Your task to perform on an android device: open the mobile data screen to see how much data has been used Image 0: 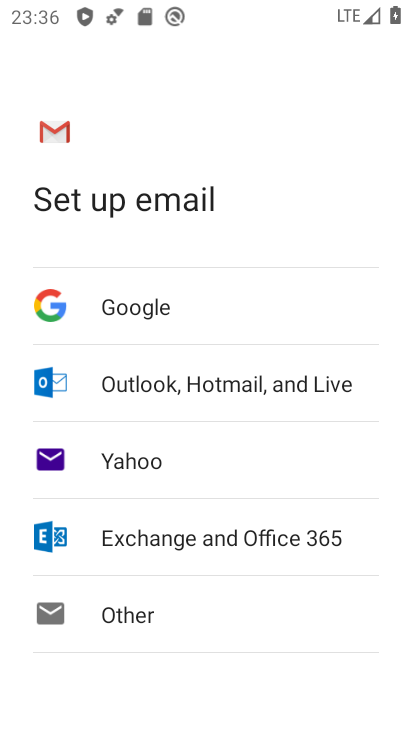
Step 0: press home button
Your task to perform on an android device: open the mobile data screen to see how much data has been used Image 1: 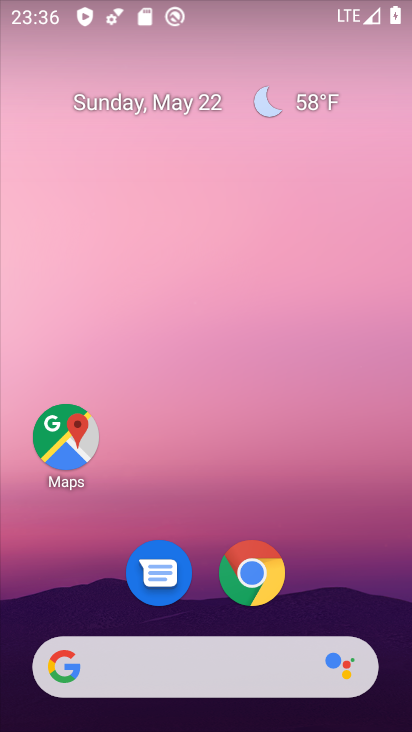
Step 1: drag from (208, 591) to (267, 0)
Your task to perform on an android device: open the mobile data screen to see how much data has been used Image 2: 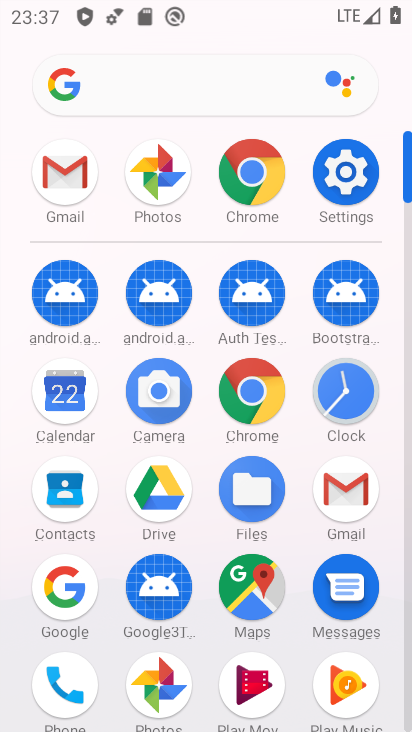
Step 2: click (363, 172)
Your task to perform on an android device: open the mobile data screen to see how much data has been used Image 3: 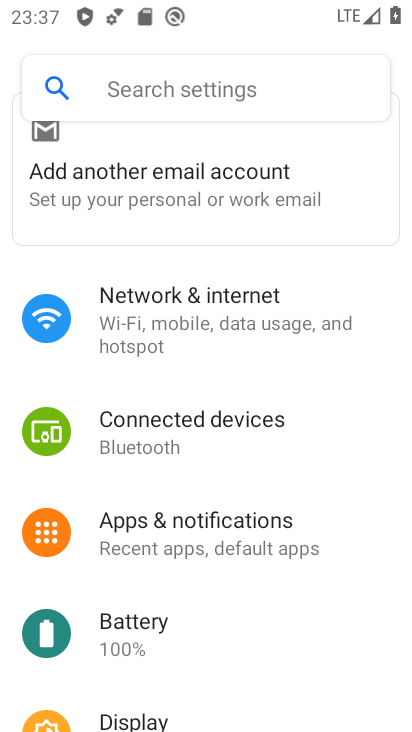
Step 3: click (242, 329)
Your task to perform on an android device: open the mobile data screen to see how much data has been used Image 4: 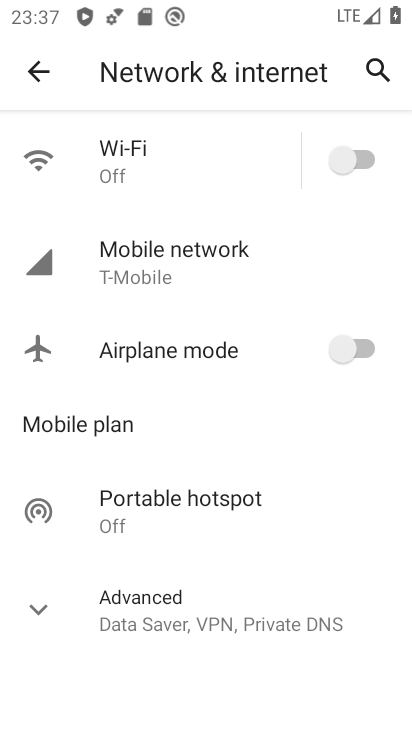
Step 4: click (156, 277)
Your task to perform on an android device: open the mobile data screen to see how much data has been used Image 5: 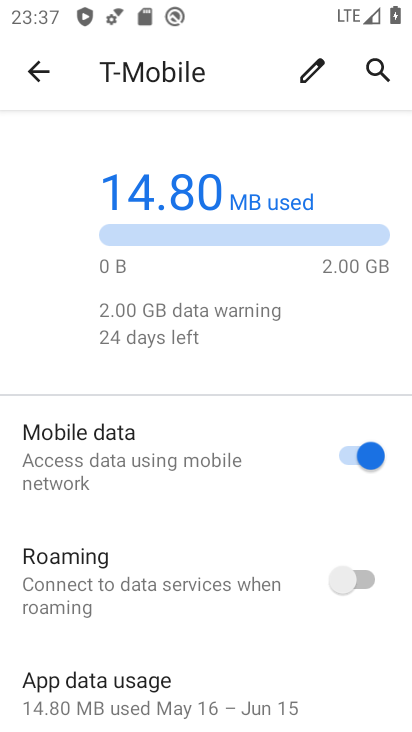
Step 5: click (181, 255)
Your task to perform on an android device: open the mobile data screen to see how much data has been used Image 6: 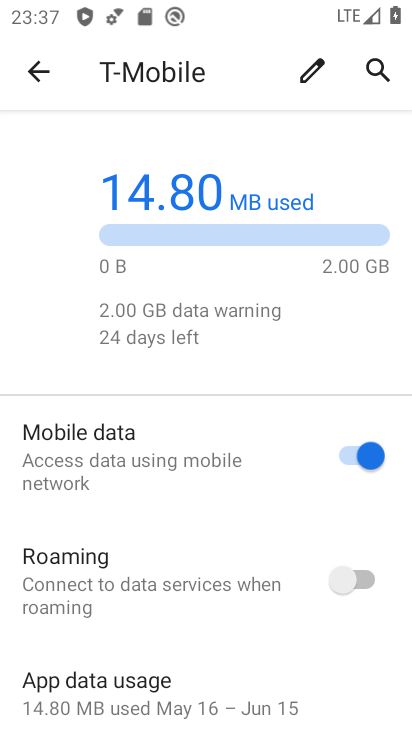
Step 6: drag from (218, 572) to (239, 159)
Your task to perform on an android device: open the mobile data screen to see how much data has been used Image 7: 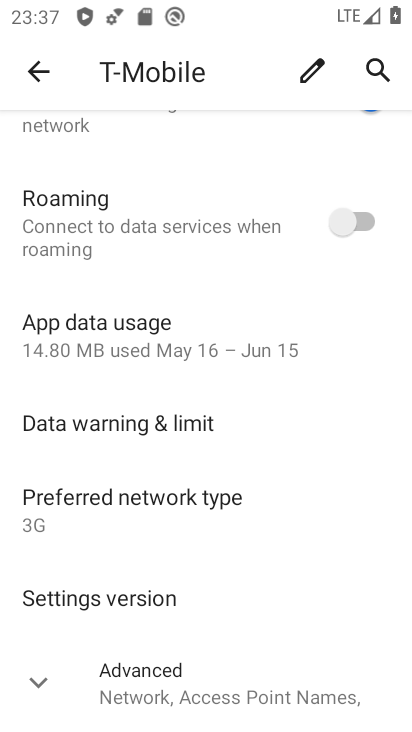
Step 7: click (152, 332)
Your task to perform on an android device: open the mobile data screen to see how much data has been used Image 8: 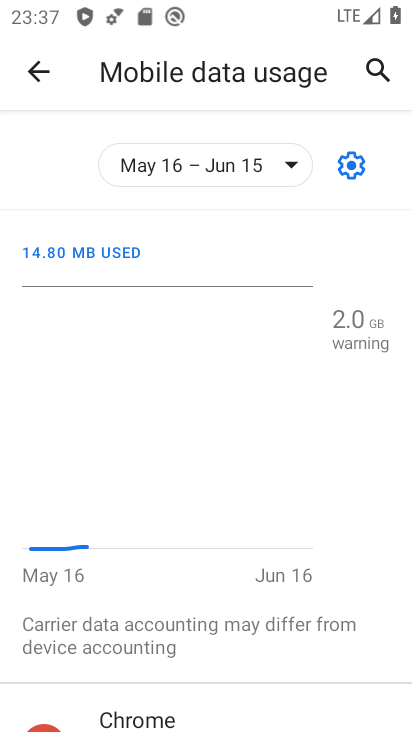
Step 8: task complete